Your task to perform on an android device: search for starred emails in the gmail app Image 0: 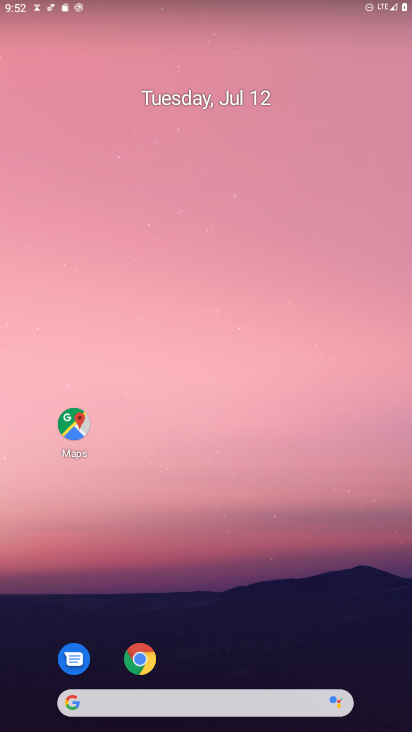
Step 0: drag from (184, 704) to (244, 96)
Your task to perform on an android device: search for starred emails in the gmail app Image 1: 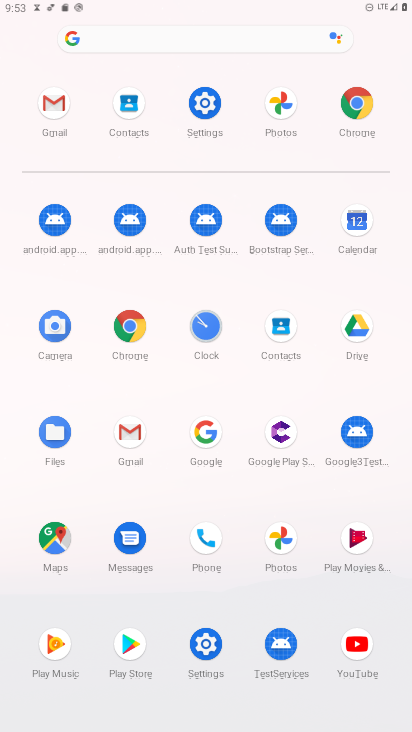
Step 1: click (52, 101)
Your task to perform on an android device: search for starred emails in the gmail app Image 2: 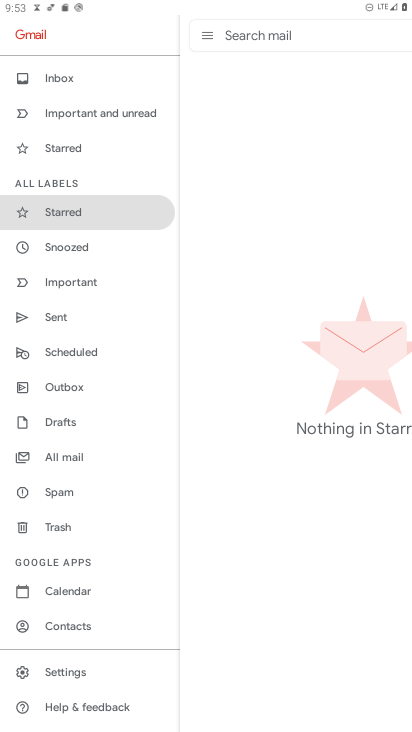
Step 2: click (55, 82)
Your task to perform on an android device: search for starred emails in the gmail app Image 3: 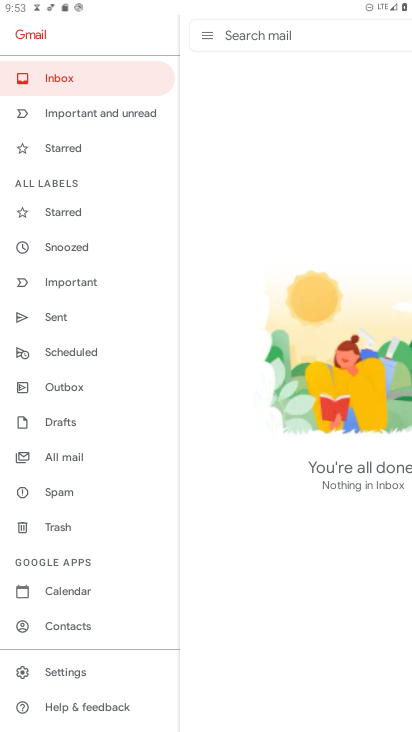
Step 3: click (59, 109)
Your task to perform on an android device: search for starred emails in the gmail app Image 4: 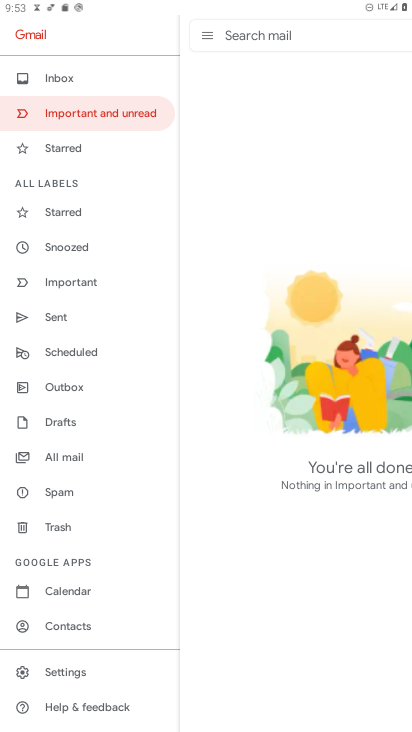
Step 4: click (66, 146)
Your task to perform on an android device: search for starred emails in the gmail app Image 5: 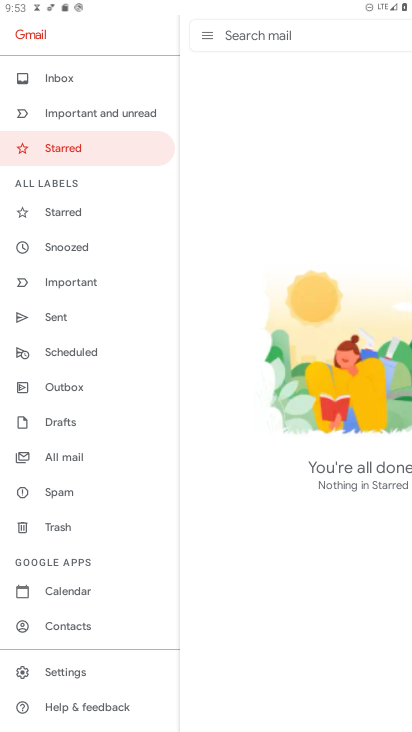
Step 5: click (56, 220)
Your task to perform on an android device: search for starred emails in the gmail app Image 6: 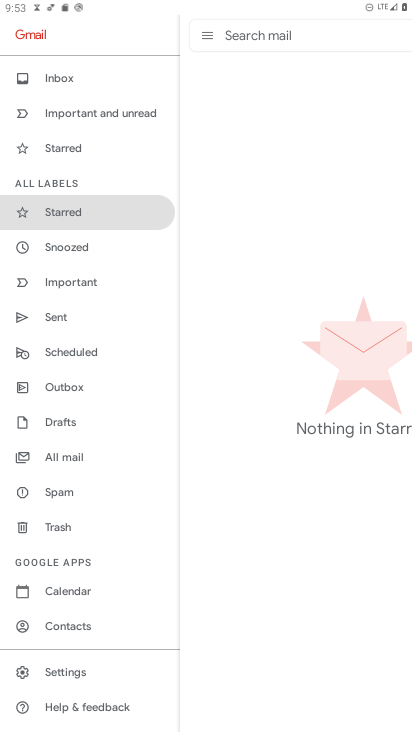
Step 6: click (64, 253)
Your task to perform on an android device: search for starred emails in the gmail app Image 7: 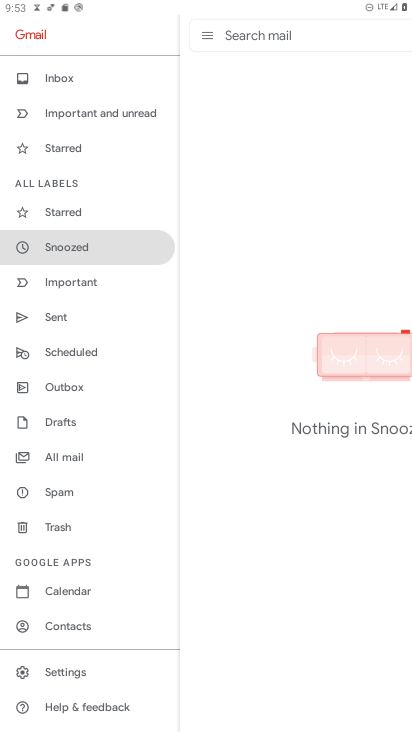
Step 7: click (69, 285)
Your task to perform on an android device: search for starred emails in the gmail app Image 8: 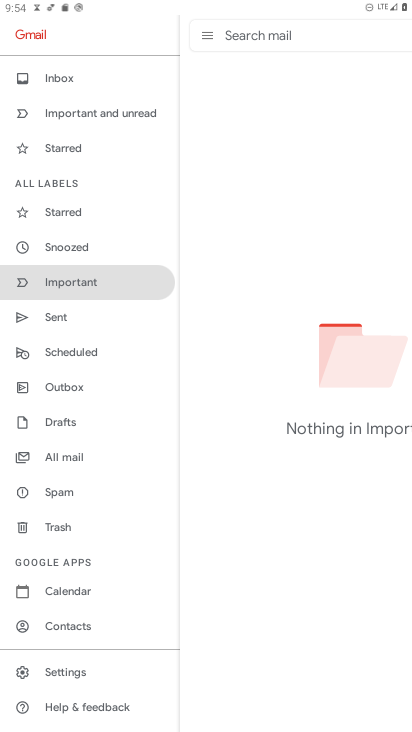
Step 8: task complete